Your task to perform on an android device: Check the weather Image 0: 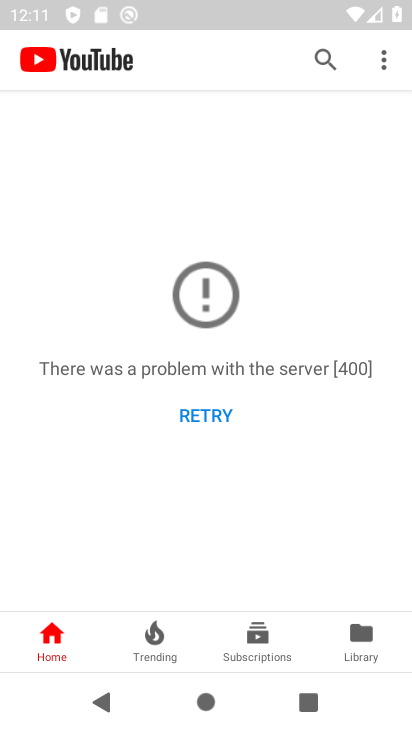
Step 0: press home button
Your task to perform on an android device: Check the weather Image 1: 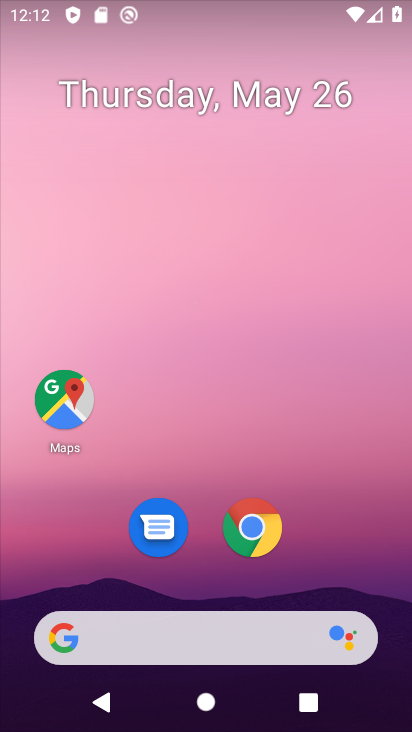
Step 1: click (220, 645)
Your task to perform on an android device: Check the weather Image 2: 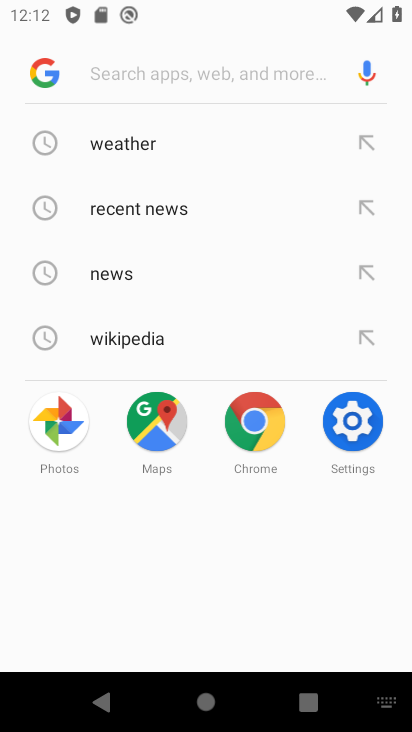
Step 2: click (170, 140)
Your task to perform on an android device: Check the weather Image 3: 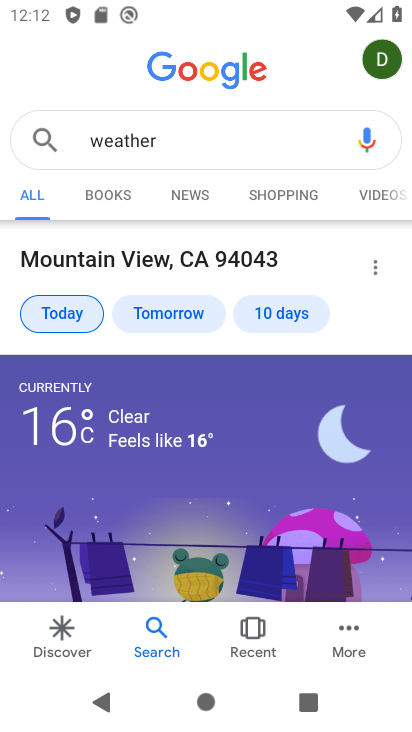
Step 3: task complete